Your task to perform on an android device: allow notifications from all sites in the chrome app Image 0: 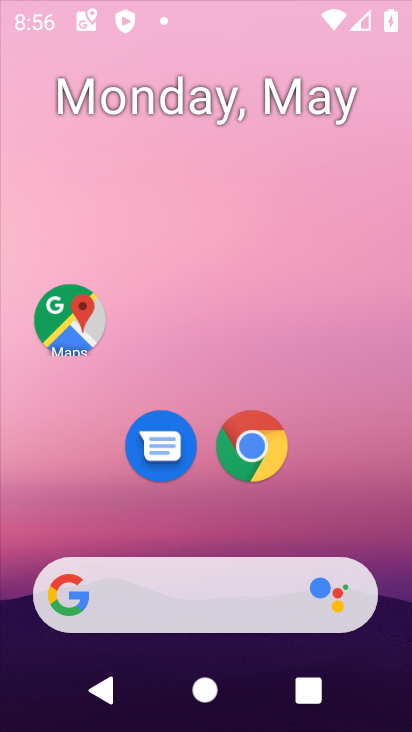
Step 0: press home button
Your task to perform on an android device: allow notifications from all sites in the chrome app Image 1: 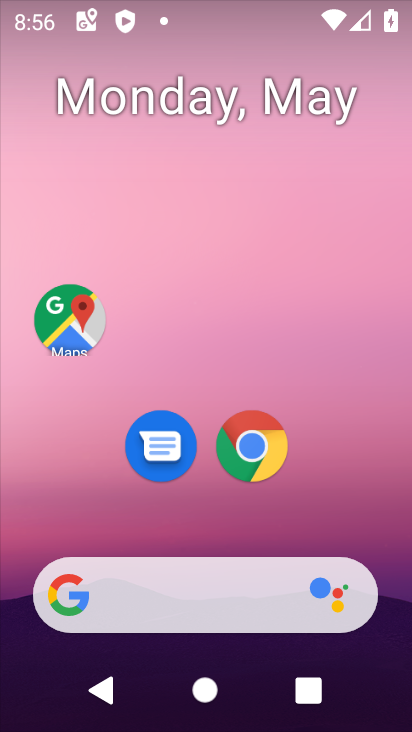
Step 1: click (249, 438)
Your task to perform on an android device: allow notifications from all sites in the chrome app Image 2: 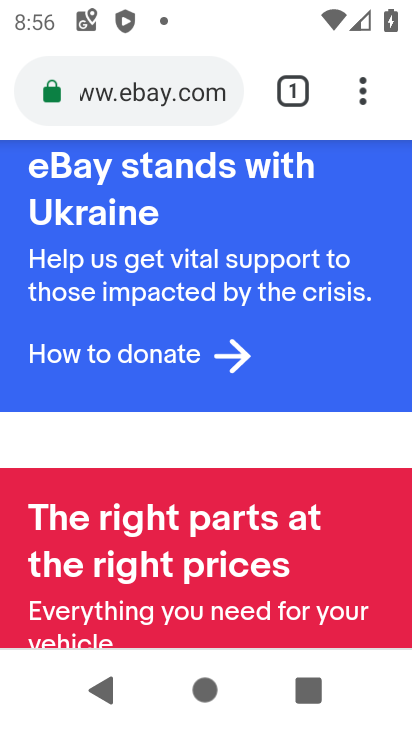
Step 2: click (364, 84)
Your task to perform on an android device: allow notifications from all sites in the chrome app Image 3: 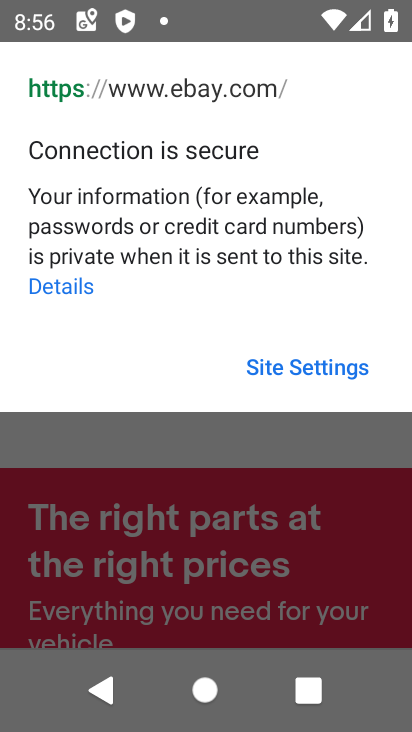
Step 3: click (270, 486)
Your task to perform on an android device: allow notifications from all sites in the chrome app Image 4: 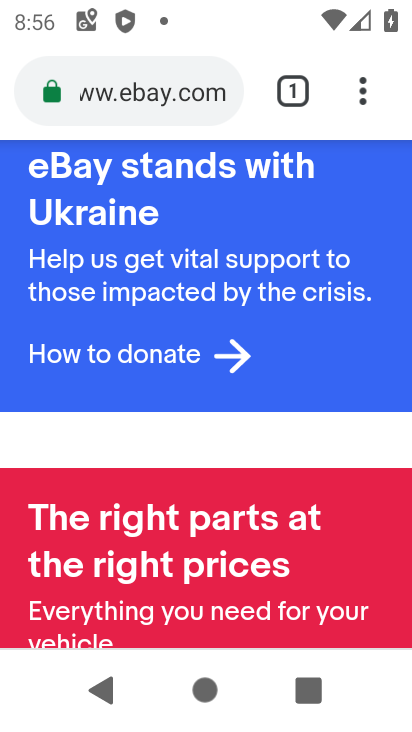
Step 4: click (361, 88)
Your task to perform on an android device: allow notifications from all sites in the chrome app Image 5: 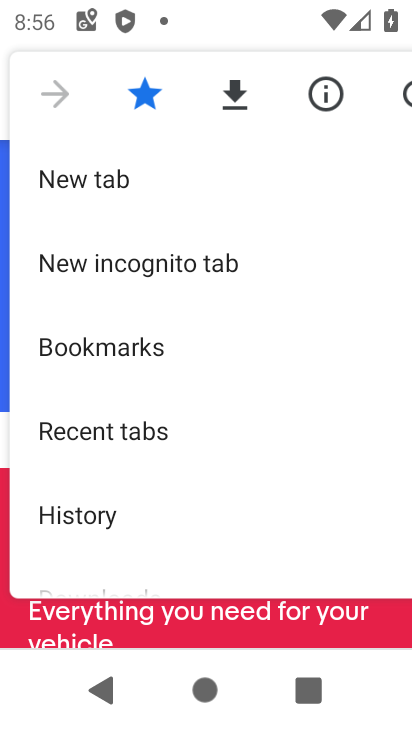
Step 5: drag from (184, 498) to (197, 113)
Your task to perform on an android device: allow notifications from all sites in the chrome app Image 6: 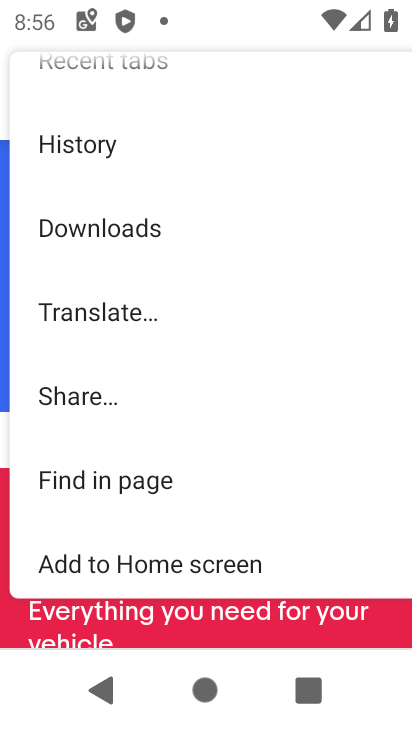
Step 6: drag from (246, 523) to (243, 70)
Your task to perform on an android device: allow notifications from all sites in the chrome app Image 7: 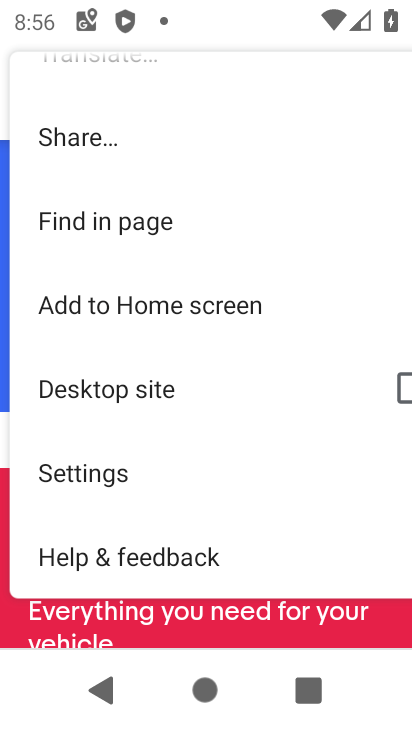
Step 7: click (143, 466)
Your task to perform on an android device: allow notifications from all sites in the chrome app Image 8: 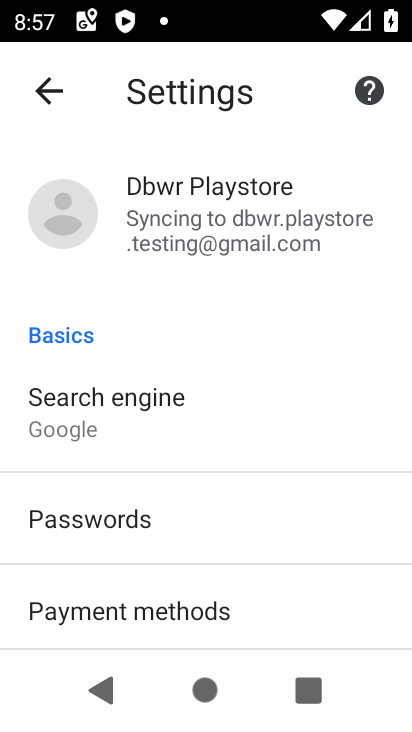
Step 8: drag from (260, 614) to (263, 116)
Your task to perform on an android device: allow notifications from all sites in the chrome app Image 9: 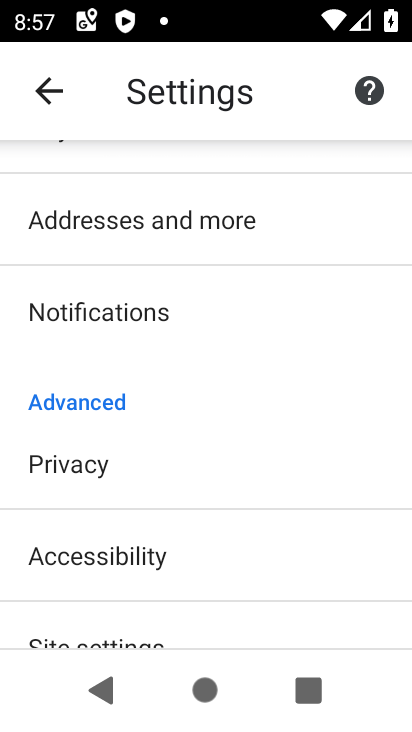
Step 9: drag from (225, 622) to (246, 152)
Your task to perform on an android device: allow notifications from all sites in the chrome app Image 10: 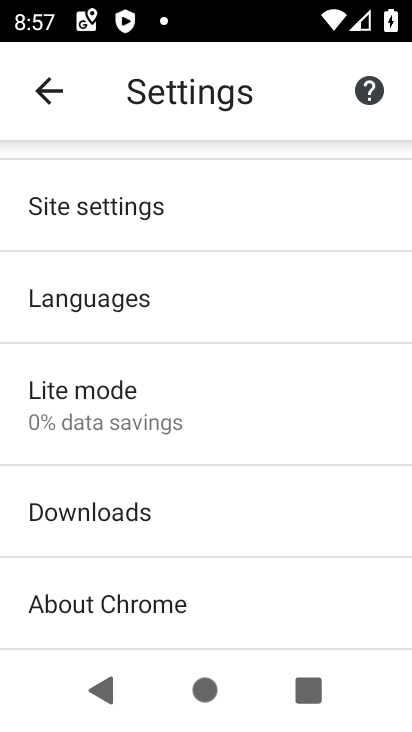
Step 10: click (192, 204)
Your task to perform on an android device: allow notifications from all sites in the chrome app Image 11: 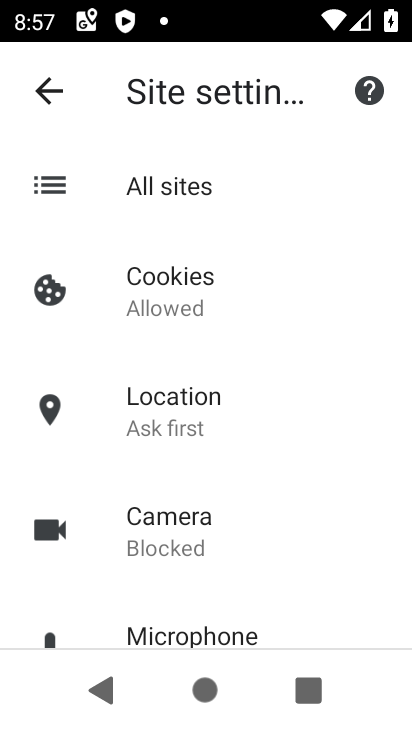
Step 11: click (88, 177)
Your task to perform on an android device: allow notifications from all sites in the chrome app Image 12: 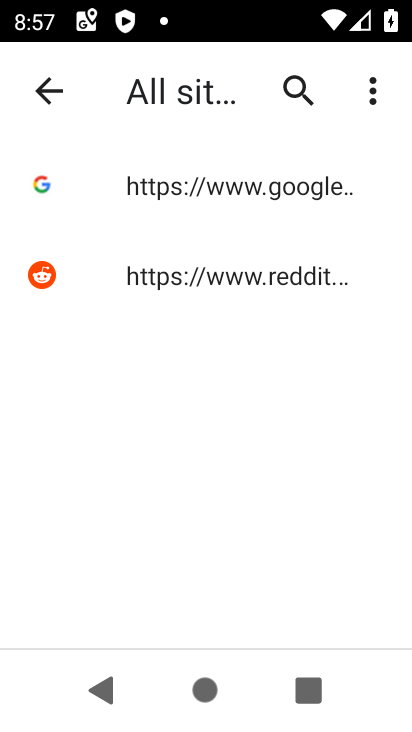
Step 12: click (98, 184)
Your task to perform on an android device: allow notifications from all sites in the chrome app Image 13: 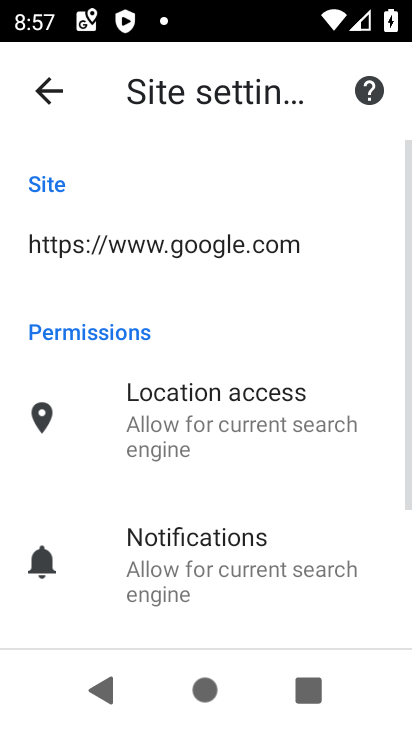
Step 13: drag from (96, 514) to (94, 241)
Your task to perform on an android device: allow notifications from all sites in the chrome app Image 14: 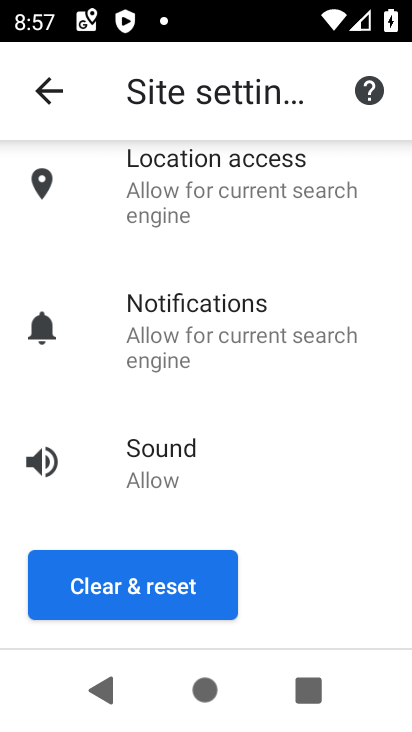
Step 14: click (63, 95)
Your task to perform on an android device: allow notifications from all sites in the chrome app Image 15: 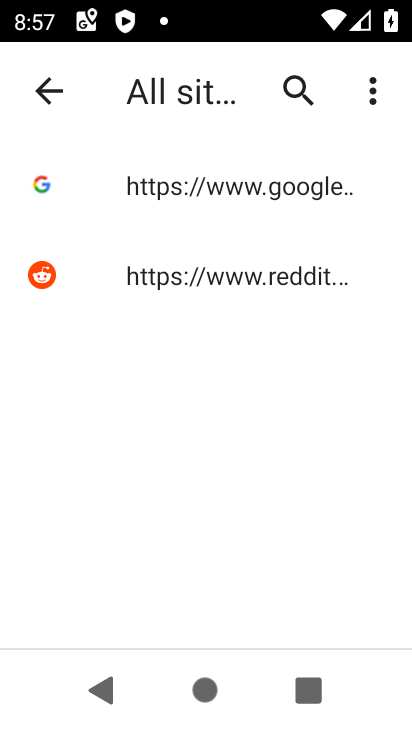
Step 15: click (72, 273)
Your task to perform on an android device: allow notifications from all sites in the chrome app Image 16: 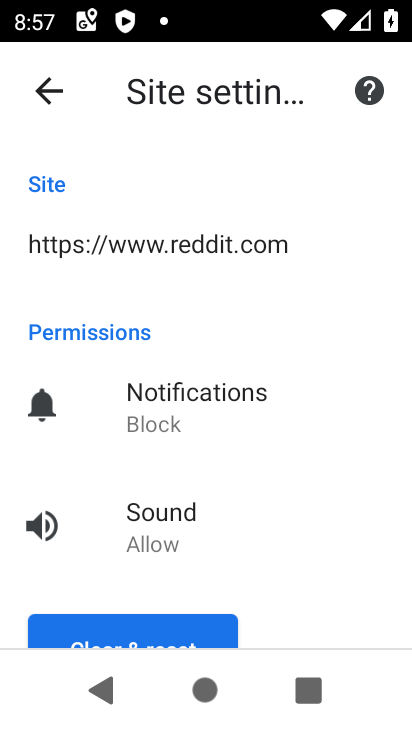
Step 16: click (63, 95)
Your task to perform on an android device: allow notifications from all sites in the chrome app Image 17: 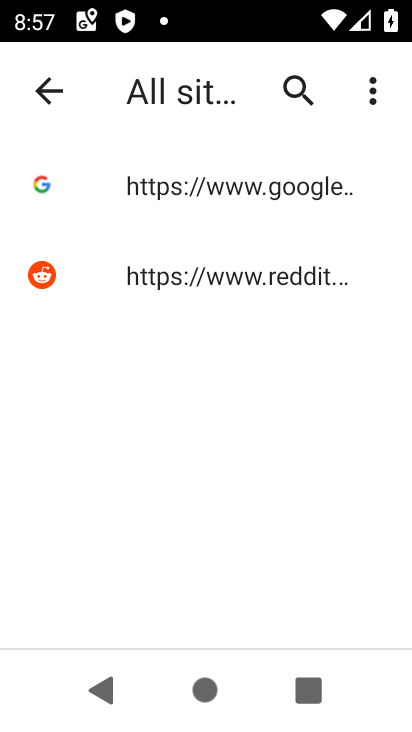
Step 17: task complete